Your task to perform on an android device: toggle sleep mode Image 0: 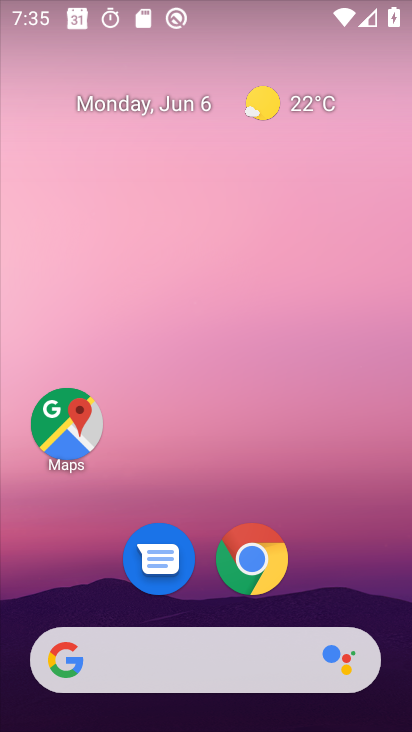
Step 0: drag from (205, 601) to (182, 249)
Your task to perform on an android device: toggle sleep mode Image 1: 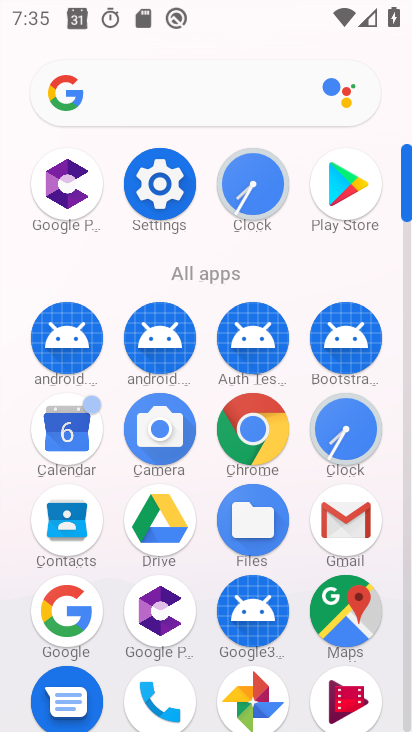
Step 1: drag from (54, 609) to (154, 242)
Your task to perform on an android device: toggle sleep mode Image 2: 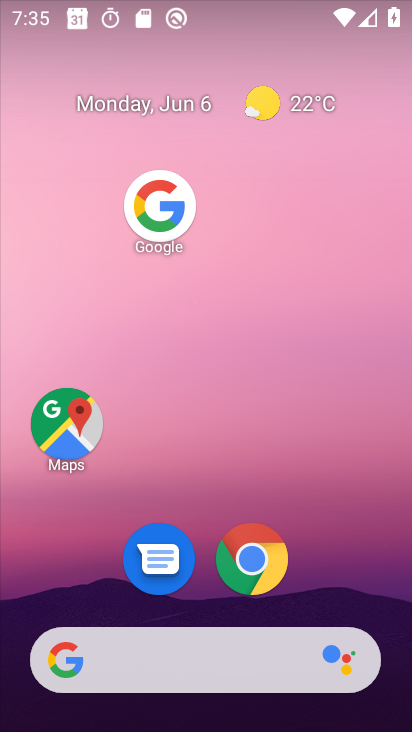
Step 2: drag from (268, 514) to (280, 117)
Your task to perform on an android device: toggle sleep mode Image 3: 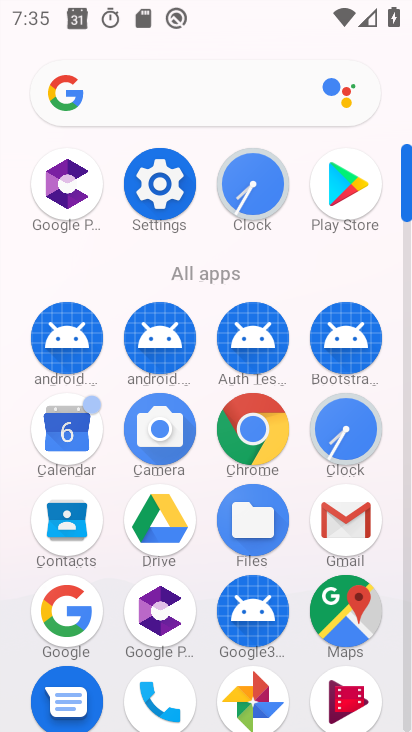
Step 3: click (162, 181)
Your task to perform on an android device: toggle sleep mode Image 4: 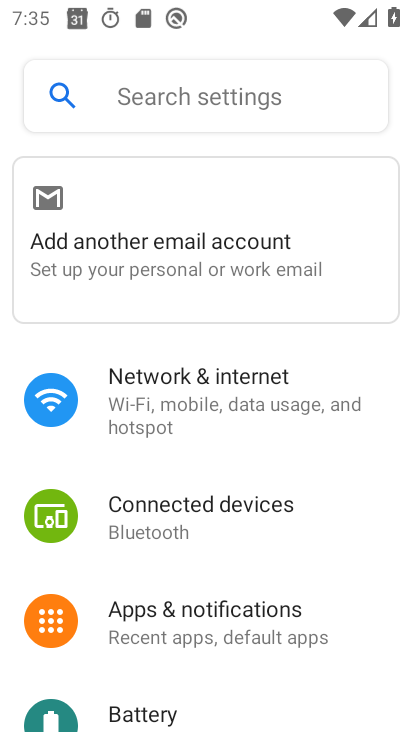
Step 4: drag from (271, 638) to (255, 328)
Your task to perform on an android device: toggle sleep mode Image 5: 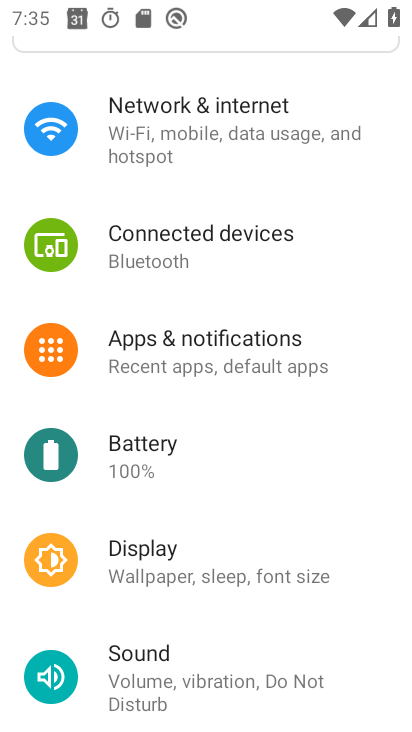
Step 5: click (145, 567)
Your task to perform on an android device: toggle sleep mode Image 6: 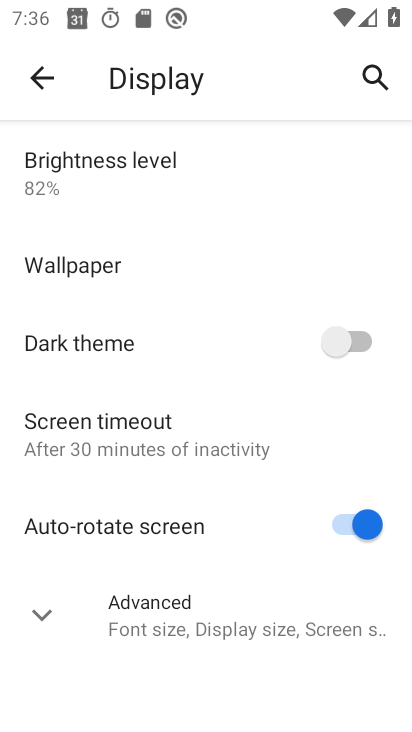
Step 6: task complete